Your task to perform on an android device: change alarm snooze length Image 0: 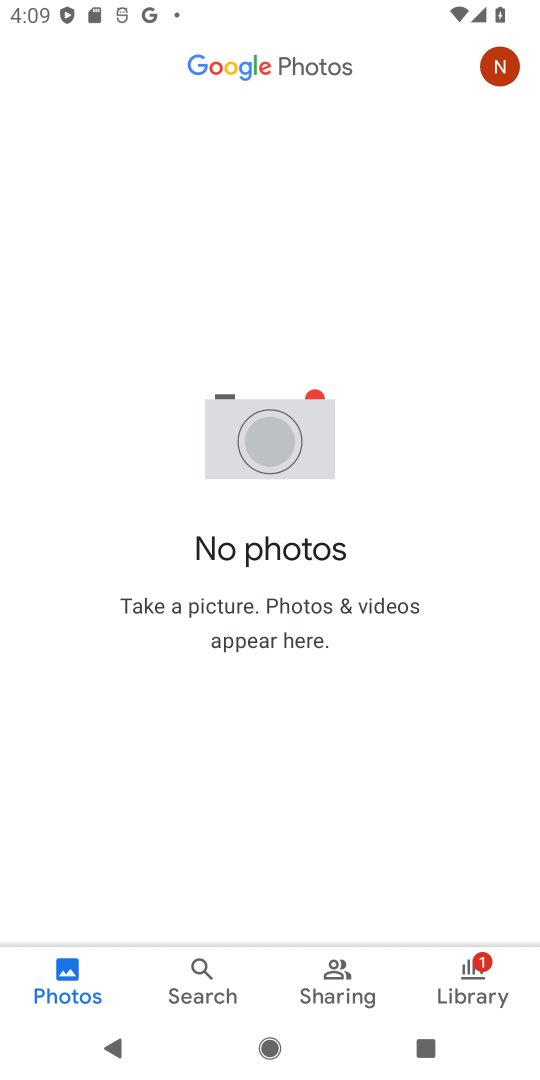
Step 0: press home button
Your task to perform on an android device: change alarm snooze length Image 1: 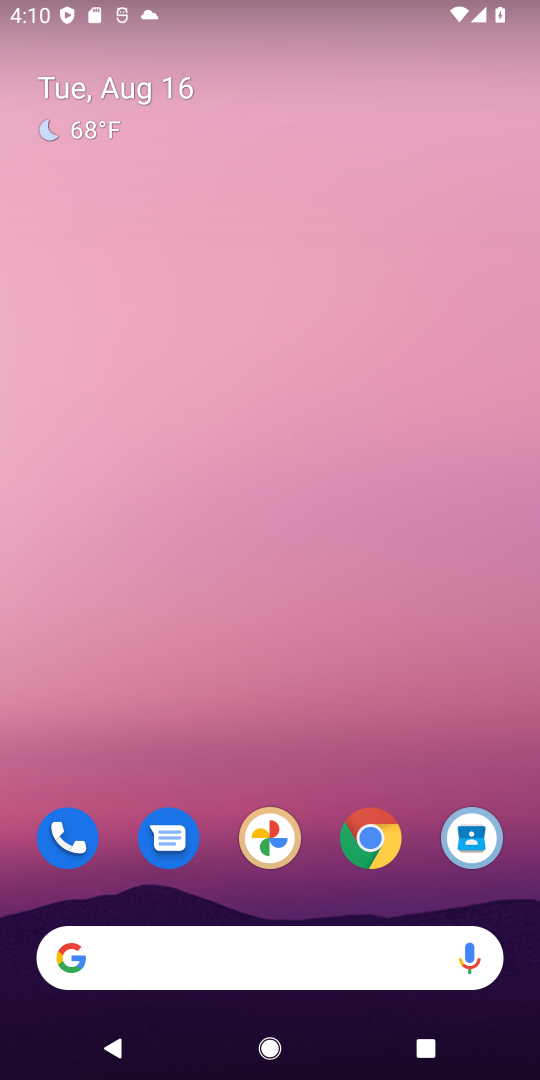
Step 1: drag from (367, 967) to (224, 308)
Your task to perform on an android device: change alarm snooze length Image 2: 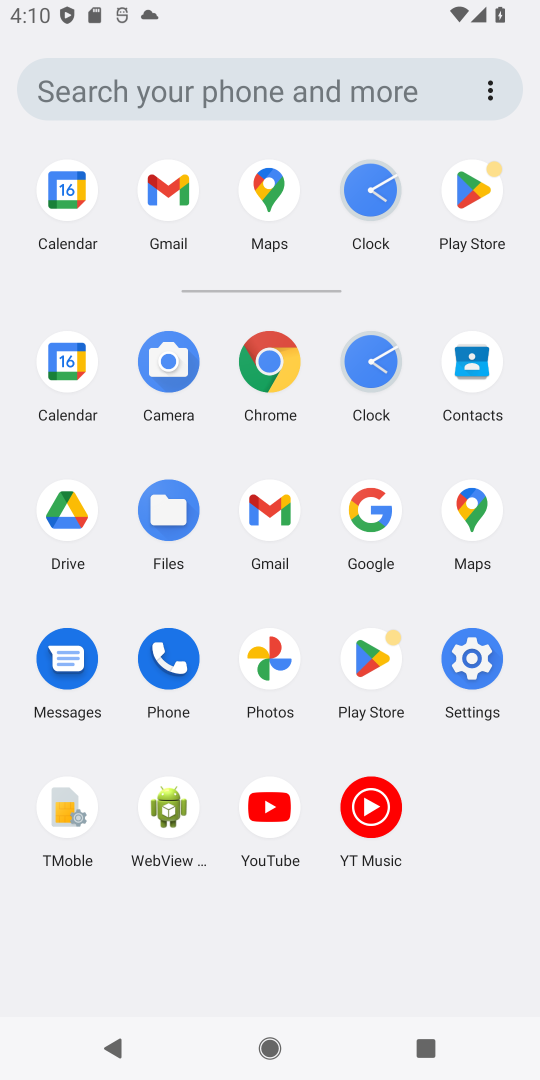
Step 2: click (386, 379)
Your task to perform on an android device: change alarm snooze length Image 3: 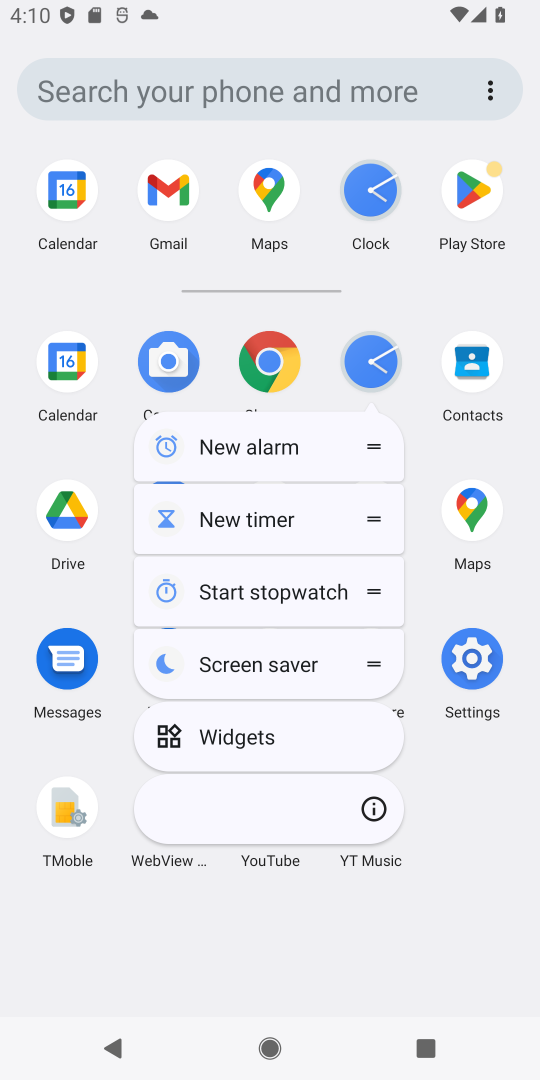
Step 3: click (512, 862)
Your task to perform on an android device: change alarm snooze length Image 4: 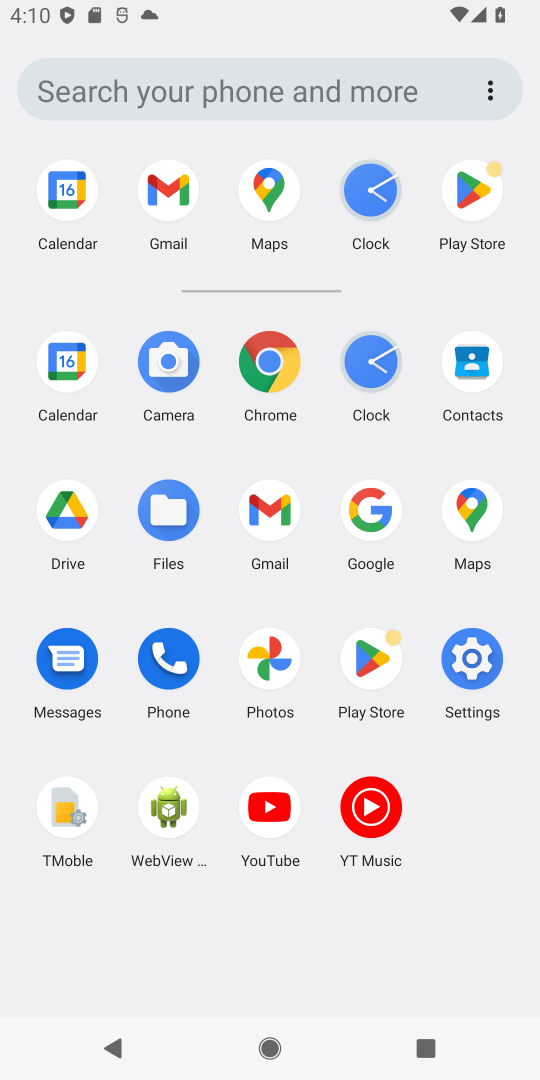
Step 4: click (369, 351)
Your task to perform on an android device: change alarm snooze length Image 5: 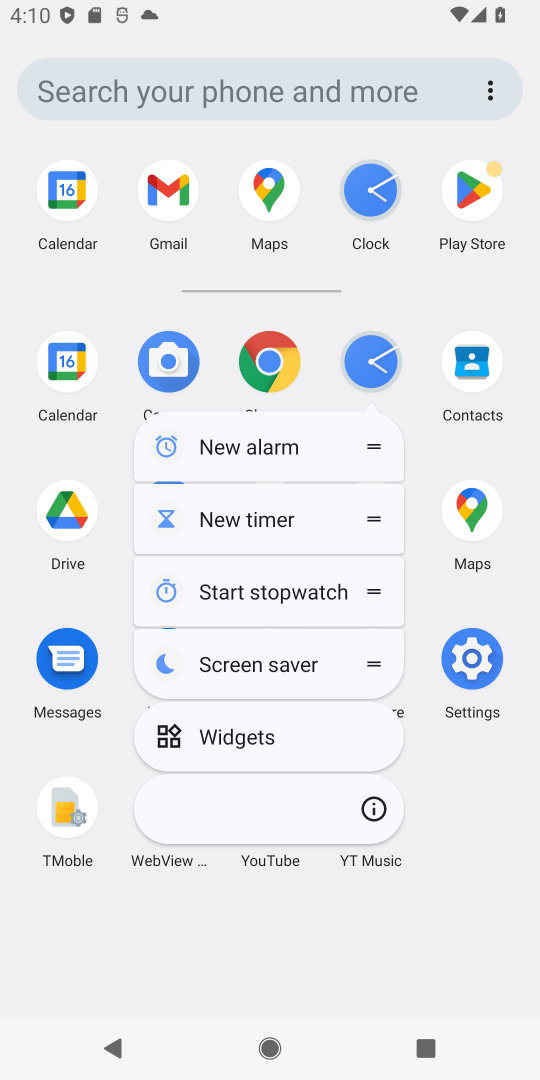
Step 5: click (381, 358)
Your task to perform on an android device: change alarm snooze length Image 6: 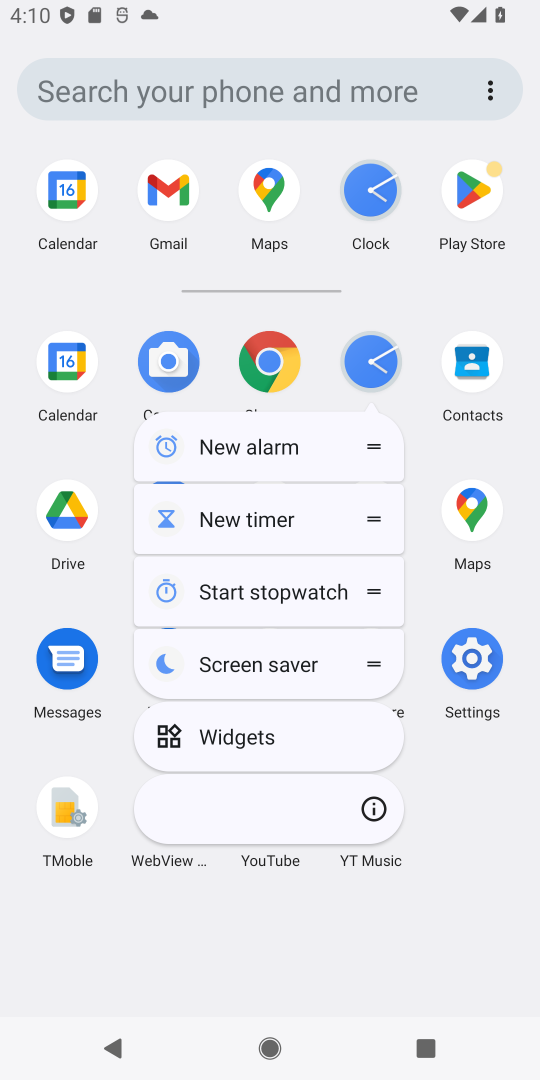
Step 6: click (381, 358)
Your task to perform on an android device: change alarm snooze length Image 7: 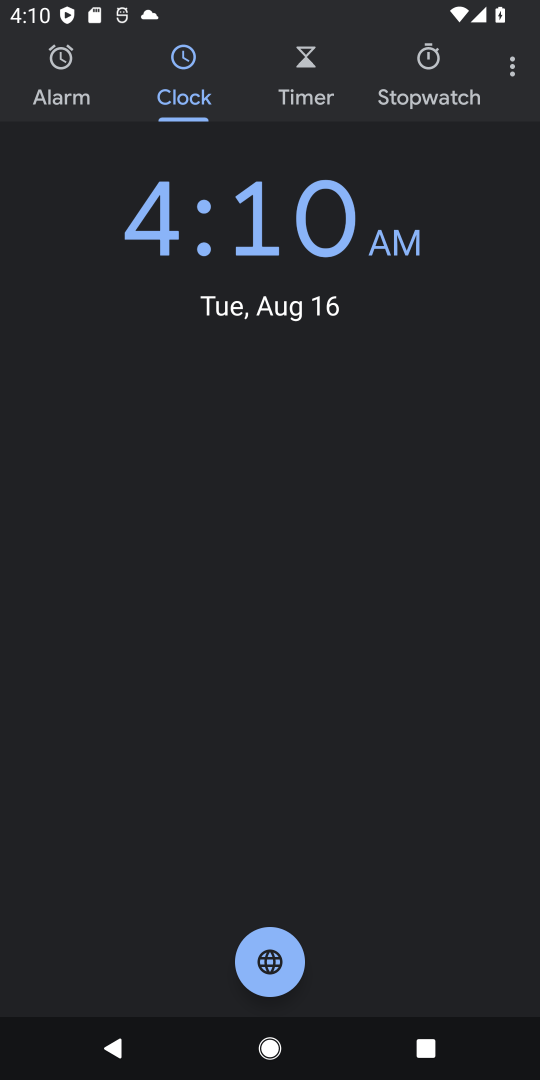
Step 7: click (513, 73)
Your task to perform on an android device: change alarm snooze length Image 8: 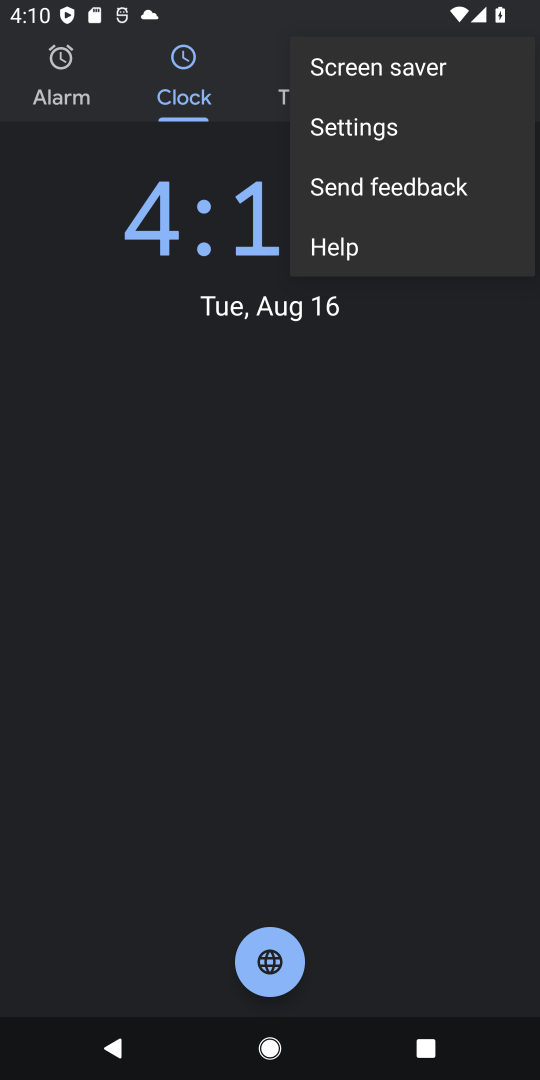
Step 8: click (398, 138)
Your task to perform on an android device: change alarm snooze length Image 9: 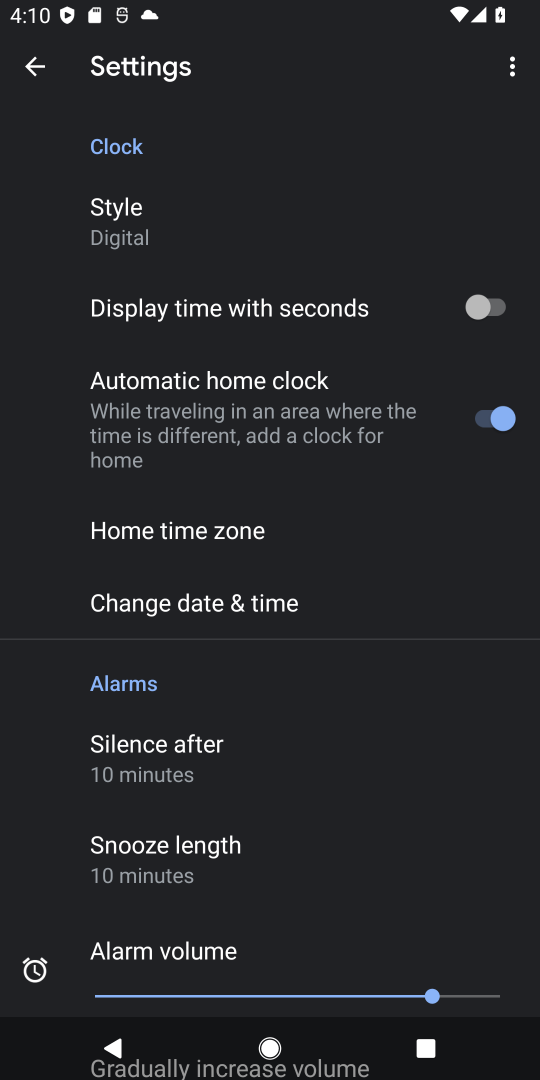
Step 9: click (248, 852)
Your task to perform on an android device: change alarm snooze length Image 10: 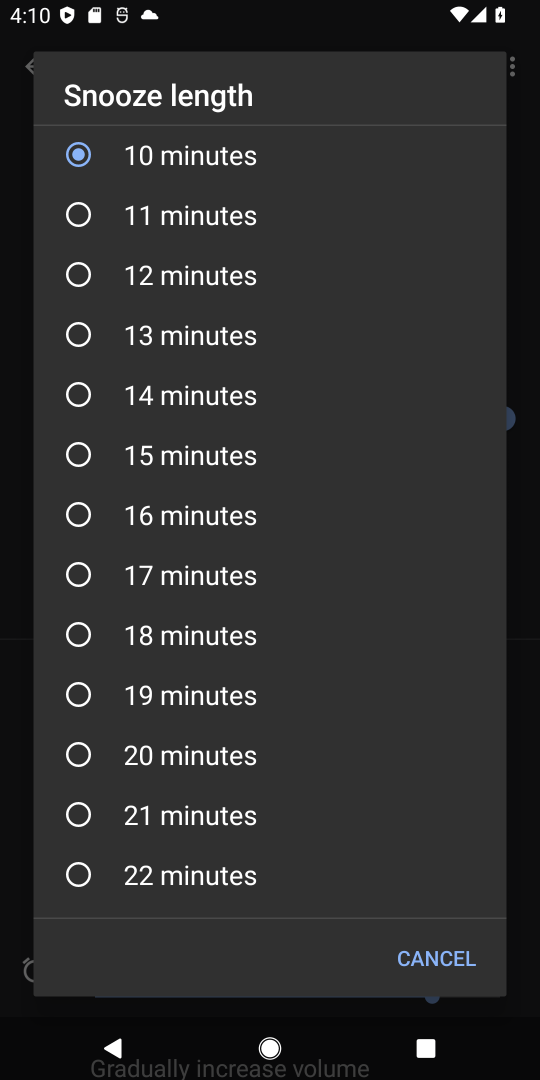
Step 10: click (134, 745)
Your task to perform on an android device: change alarm snooze length Image 11: 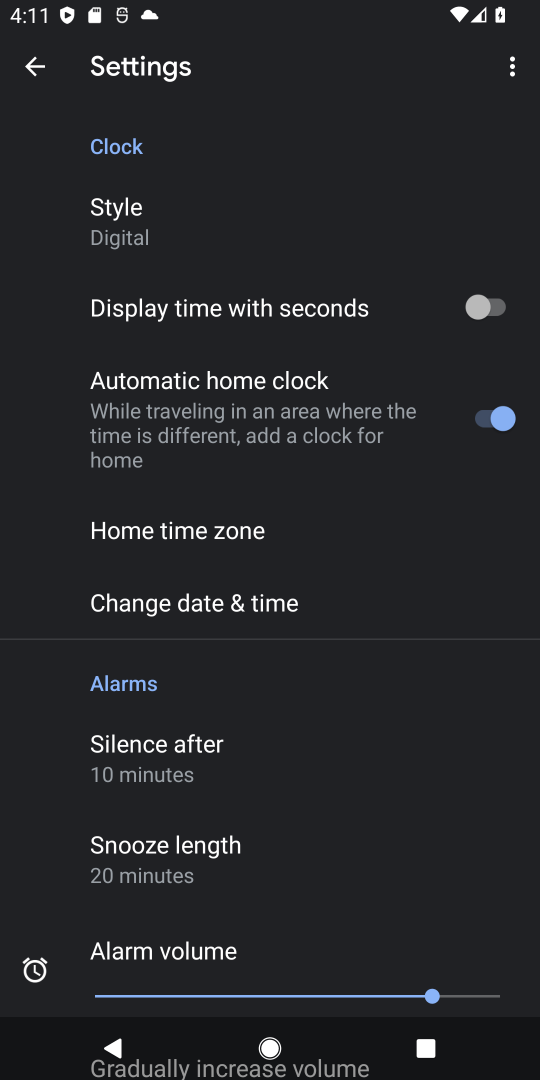
Step 11: task complete